Your task to perform on an android device: open the mobile data screen to see how much data has been used Image 0: 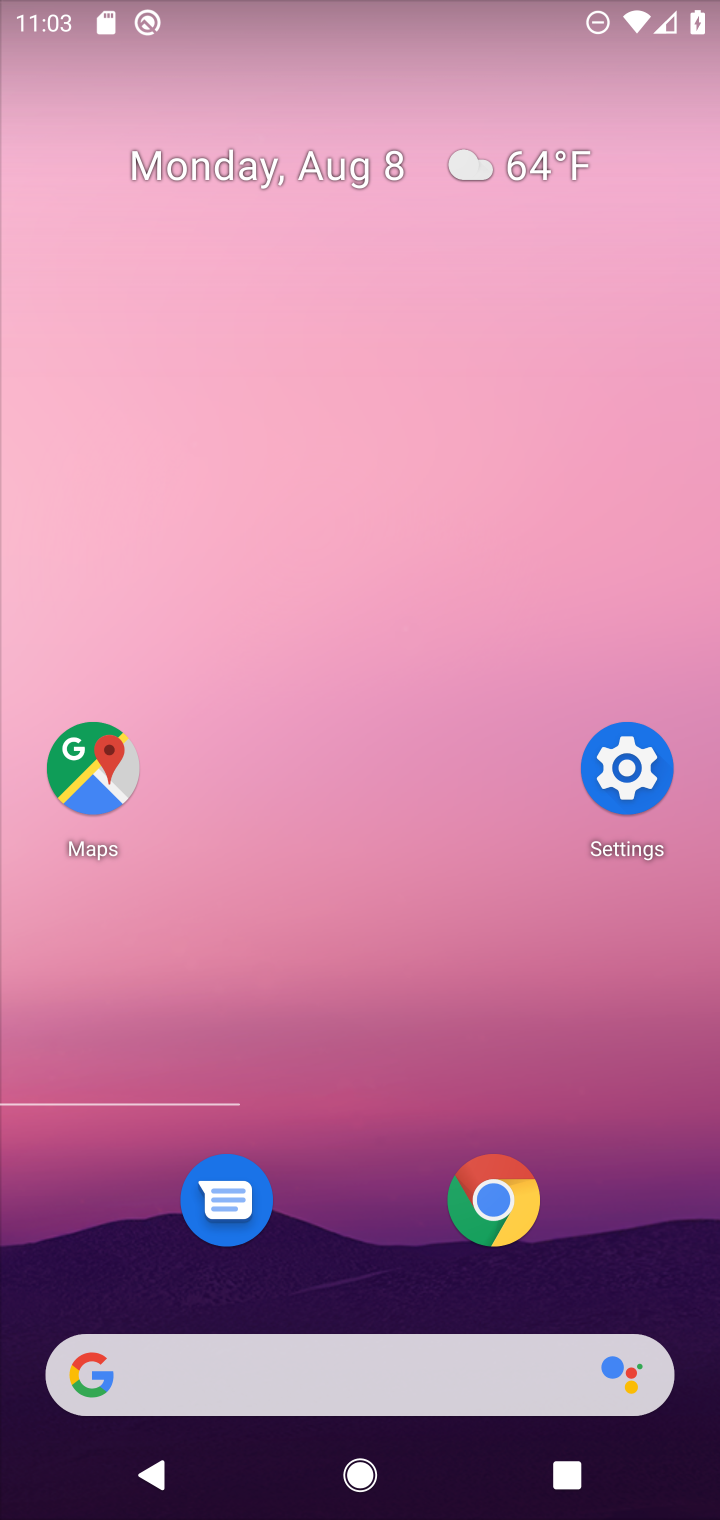
Step 0: click (628, 781)
Your task to perform on an android device: open the mobile data screen to see how much data has been used Image 1: 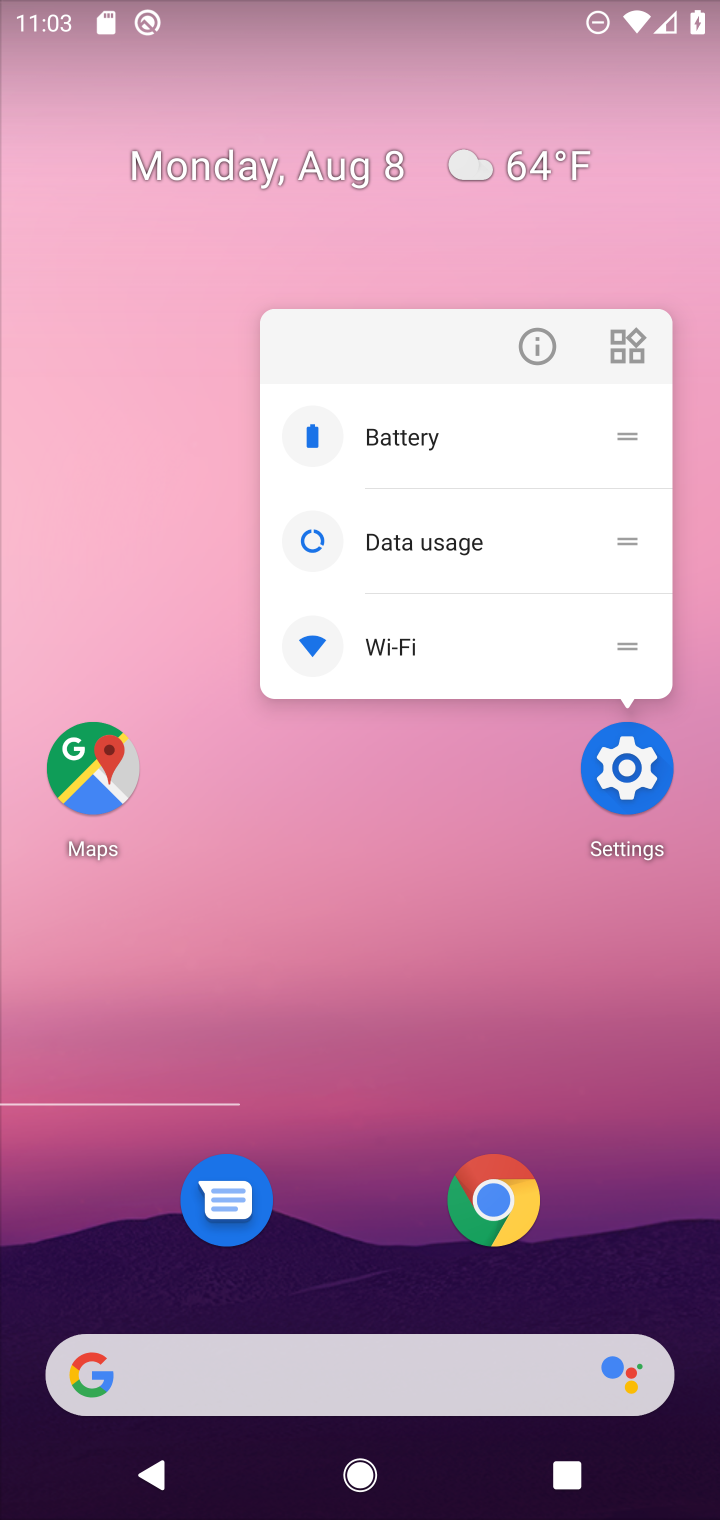
Step 1: click (615, 762)
Your task to perform on an android device: open the mobile data screen to see how much data has been used Image 2: 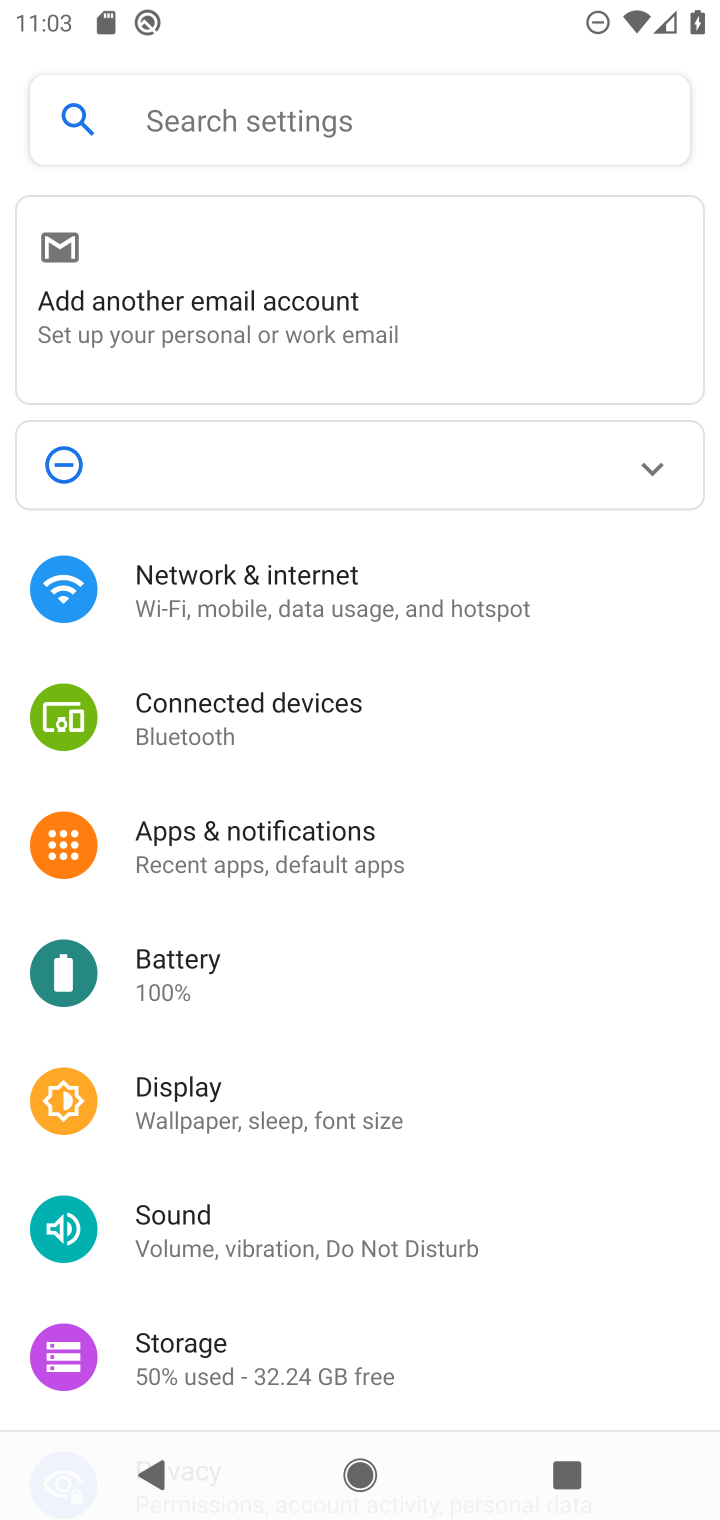
Step 2: click (283, 603)
Your task to perform on an android device: open the mobile data screen to see how much data has been used Image 3: 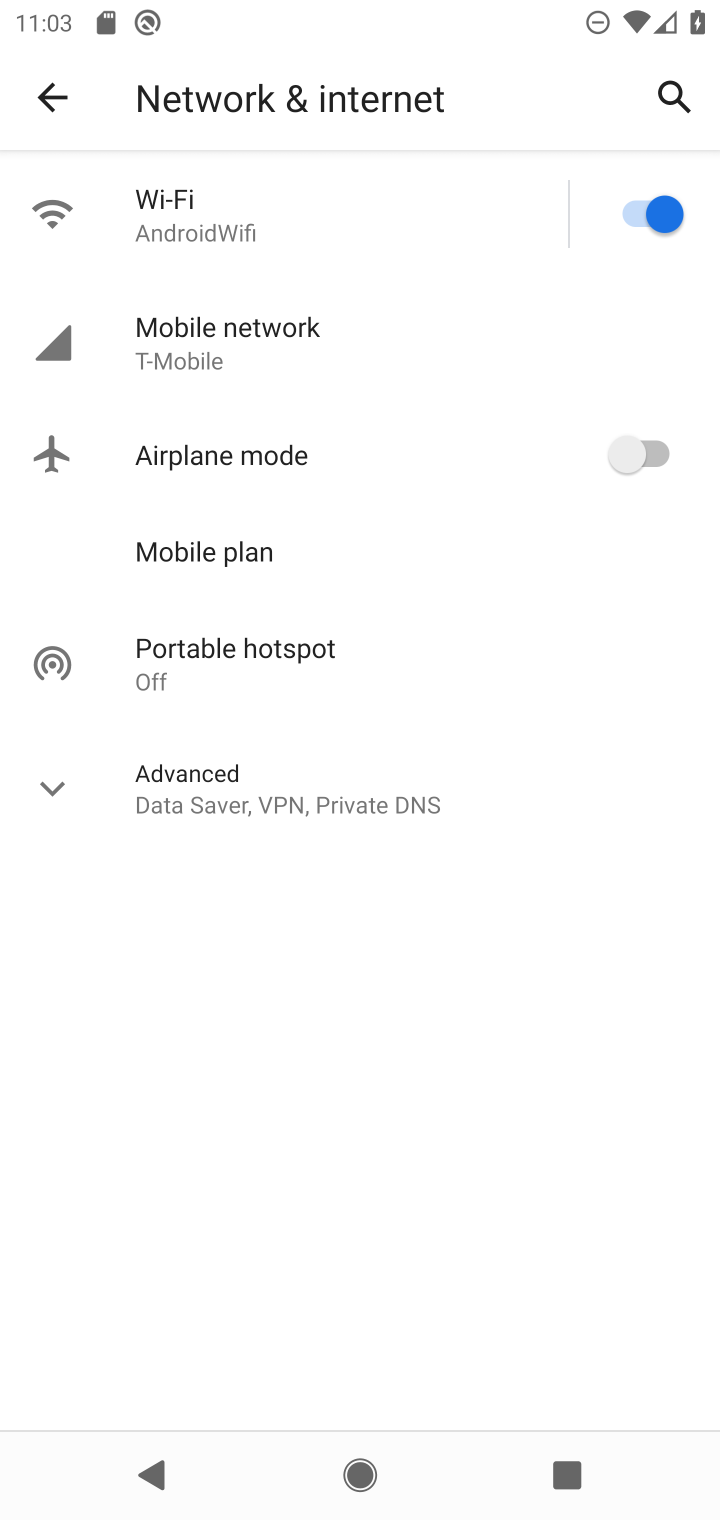
Step 3: click (286, 337)
Your task to perform on an android device: open the mobile data screen to see how much data has been used Image 4: 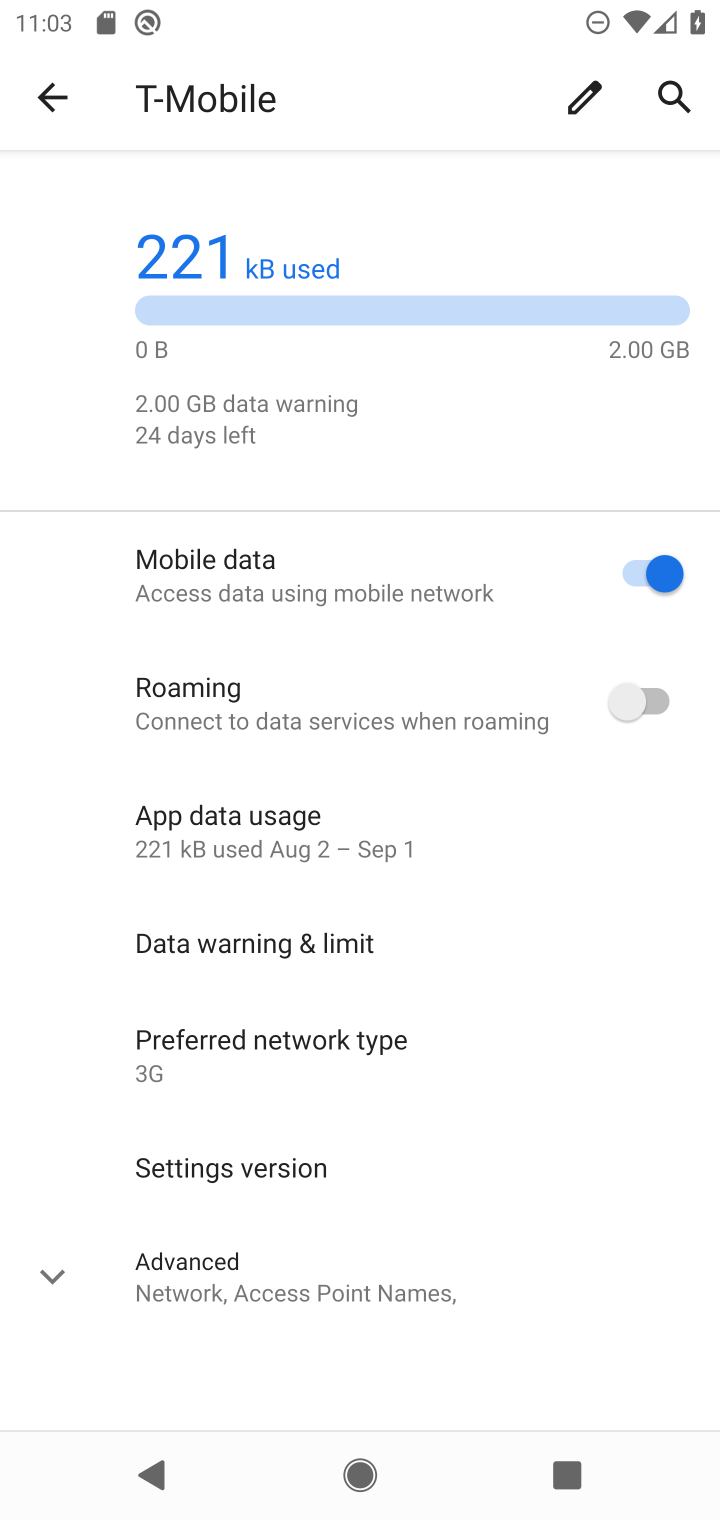
Step 4: task complete